Your task to perform on an android device: check the backup settings in the google photos Image 0: 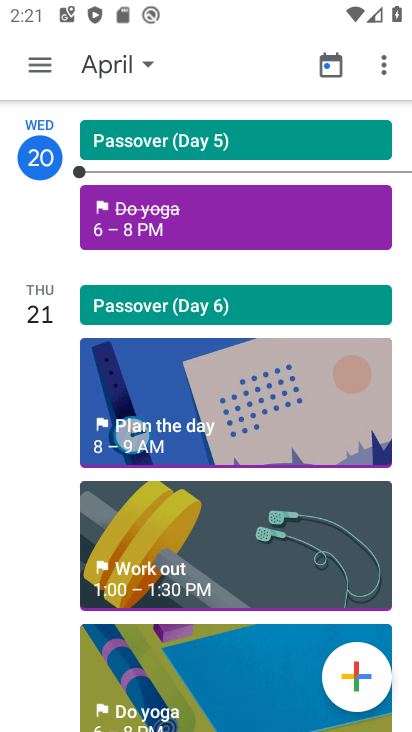
Step 0: press home button
Your task to perform on an android device: check the backup settings in the google photos Image 1: 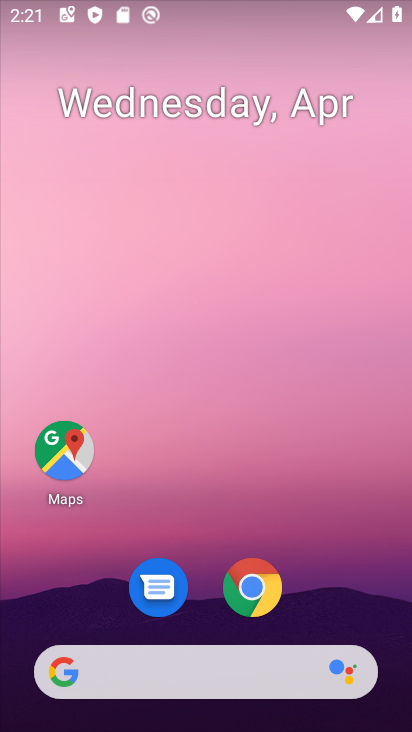
Step 1: drag from (280, 720) to (147, 67)
Your task to perform on an android device: check the backup settings in the google photos Image 2: 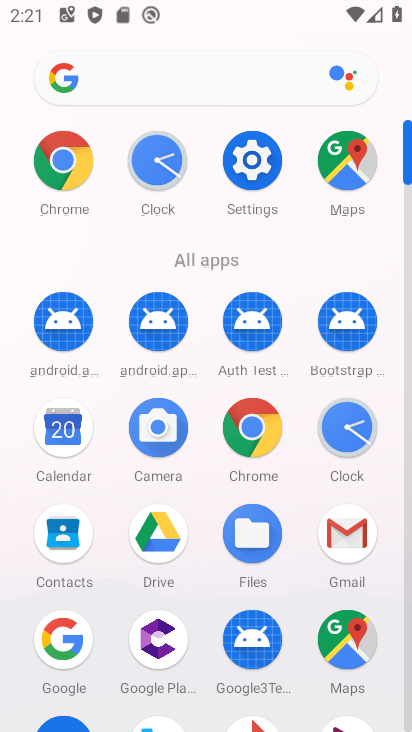
Step 2: drag from (276, 687) to (261, 103)
Your task to perform on an android device: check the backup settings in the google photos Image 3: 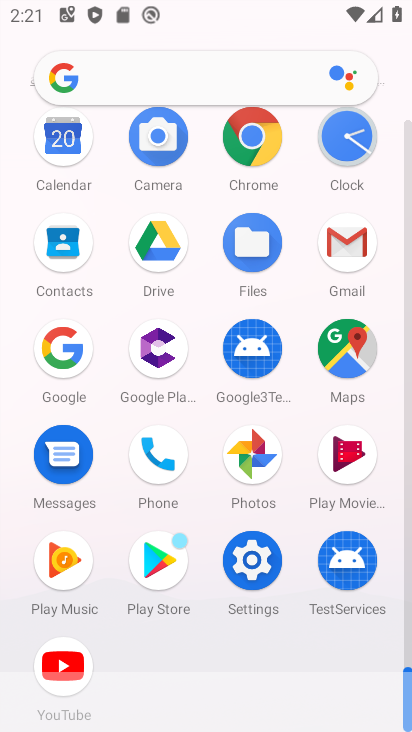
Step 3: click (231, 464)
Your task to perform on an android device: check the backup settings in the google photos Image 4: 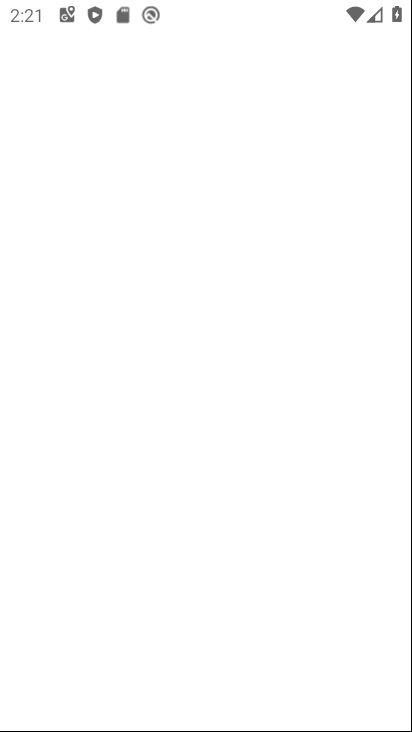
Step 4: click (231, 464)
Your task to perform on an android device: check the backup settings in the google photos Image 5: 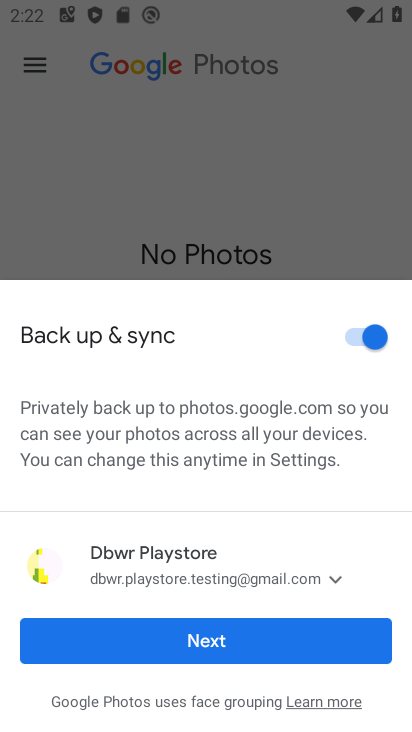
Step 5: click (276, 627)
Your task to perform on an android device: check the backup settings in the google photos Image 6: 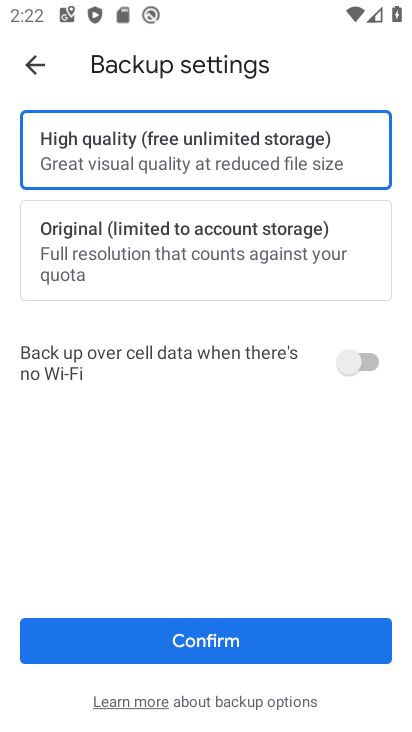
Step 6: click (246, 656)
Your task to perform on an android device: check the backup settings in the google photos Image 7: 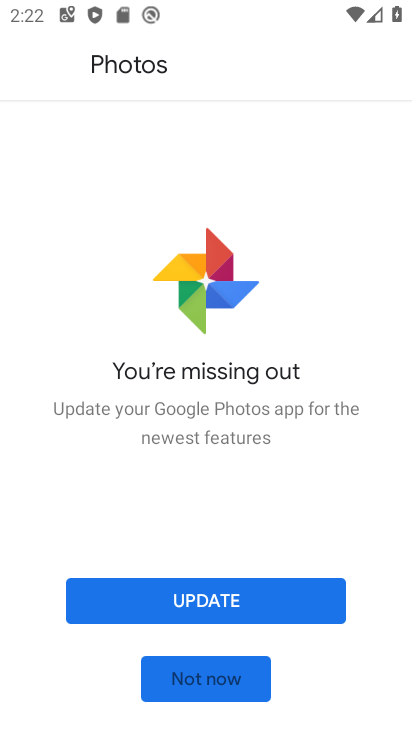
Step 7: click (242, 594)
Your task to perform on an android device: check the backup settings in the google photos Image 8: 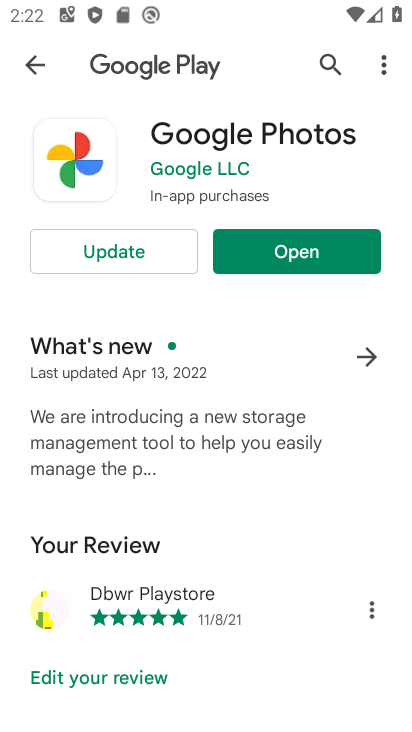
Step 8: click (157, 258)
Your task to perform on an android device: check the backup settings in the google photos Image 9: 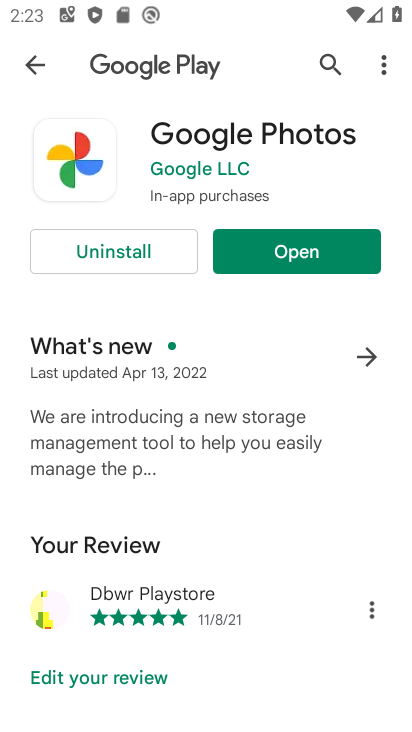
Step 9: click (330, 248)
Your task to perform on an android device: check the backup settings in the google photos Image 10: 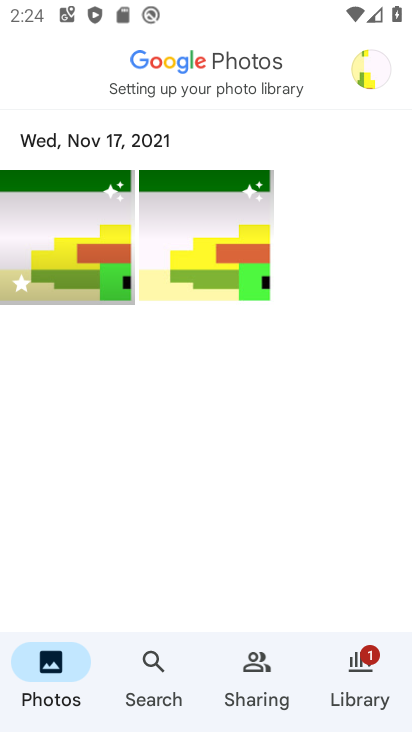
Step 10: click (364, 66)
Your task to perform on an android device: check the backup settings in the google photos Image 11: 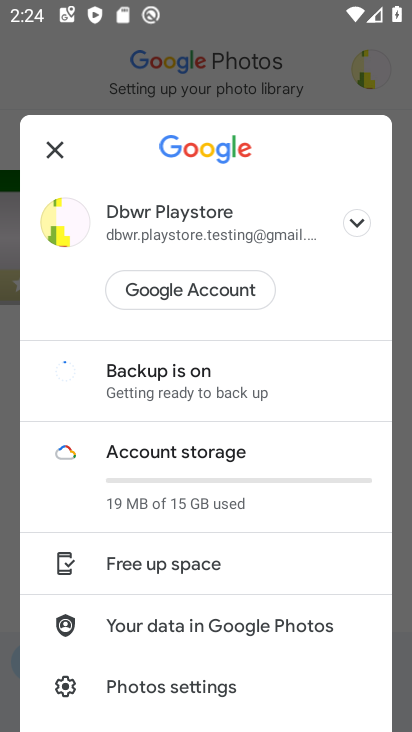
Step 11: click (259, 228)
Your task to perform on an android device: check the backup settings in the google photos Image 12: 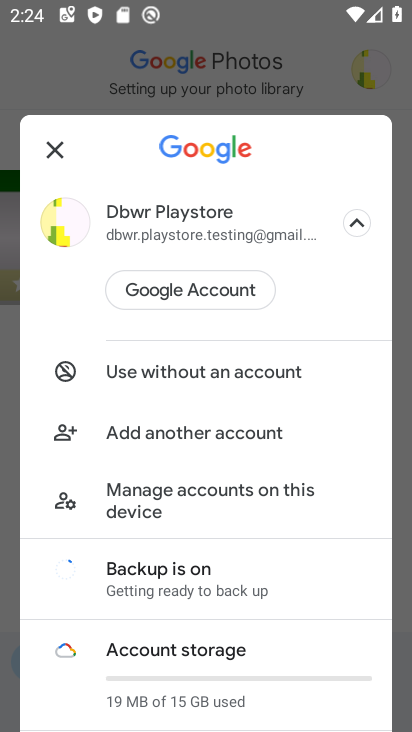
Step 12: click (265, 238)
Your task to perform on an android device: check the backup settings in the google photos Image 13: 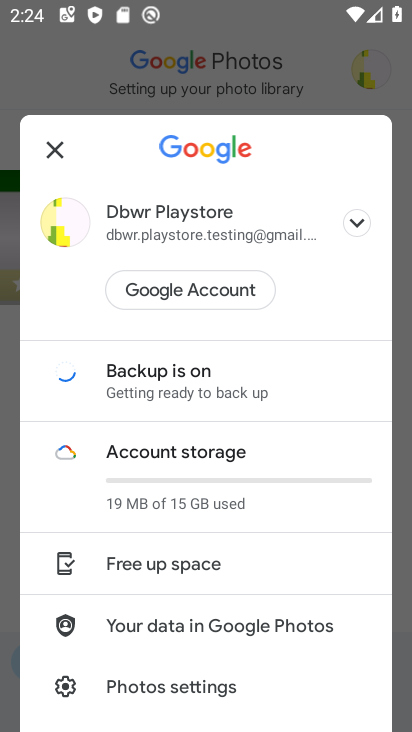
Step 13: click (185, 693)
Your task to perform on an android device: check the backup settings in the google photos Image 14: 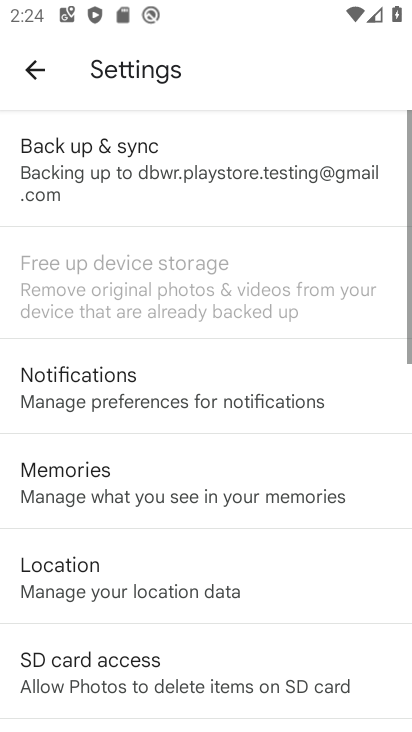
Step 14: click (284, 173)
Your task to perform on an android device: check the backup settings in the google photos Image 15: 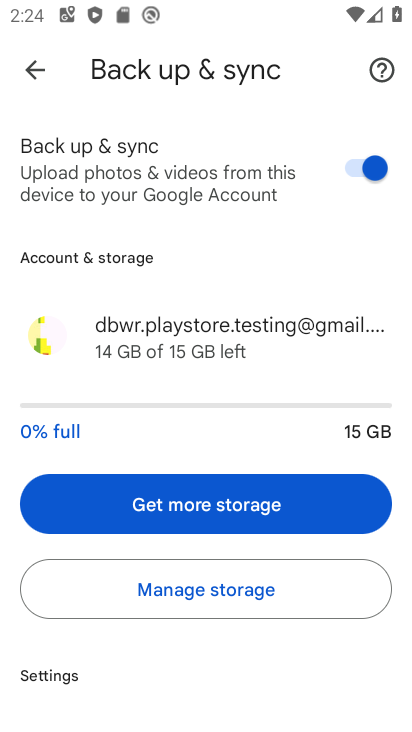
Step 15: task complete